Your task to perform on an android device: Go to Google Image 0: 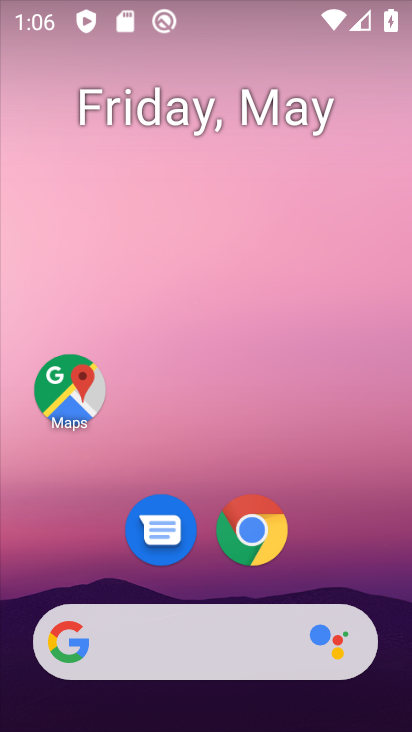
Step 0: drag from (203, 573) to (160, 10)
Your task to perform on an android device: Go to Google Image 1: 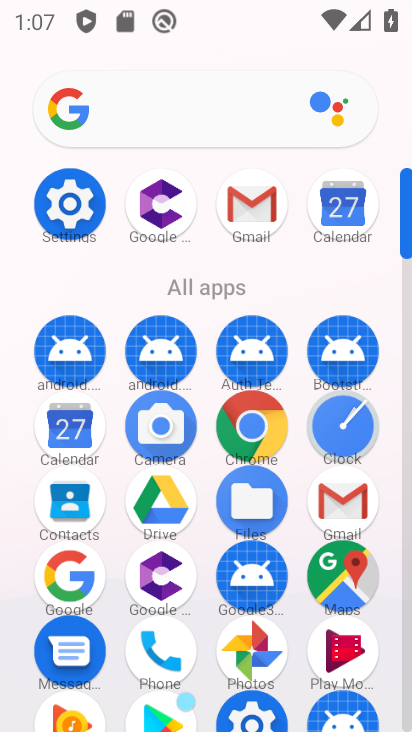
Step 1: click (63, 579)
Your task to perform on an android device: Go to Google Image 2: 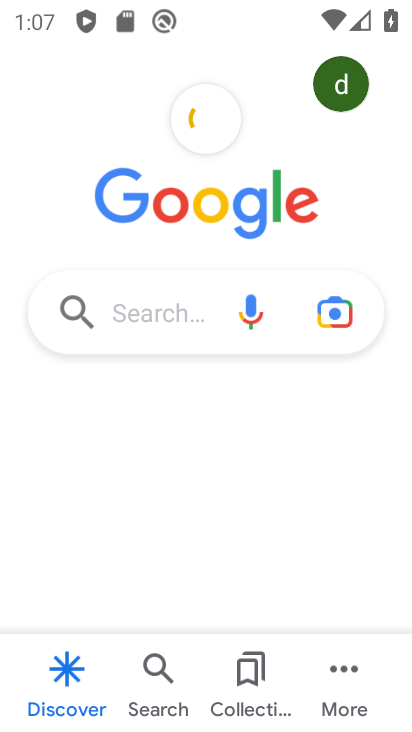
Step 2: task complete